Your task to perform on an android device: Go to Amazon Image 0: 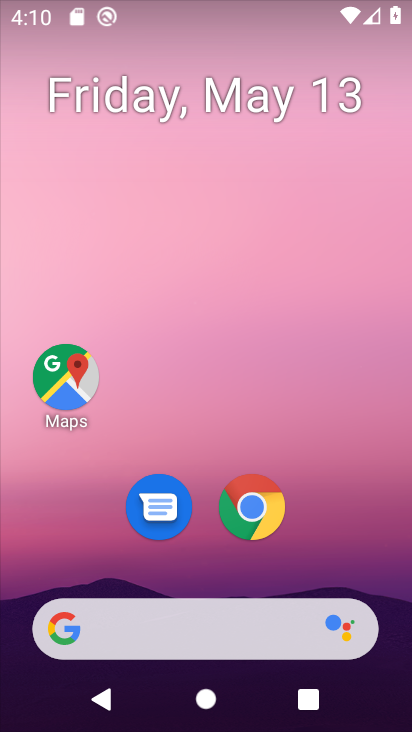
Step 0: click (258, 514)
Your task to perform on an android device: Go to Amazon Image 1: 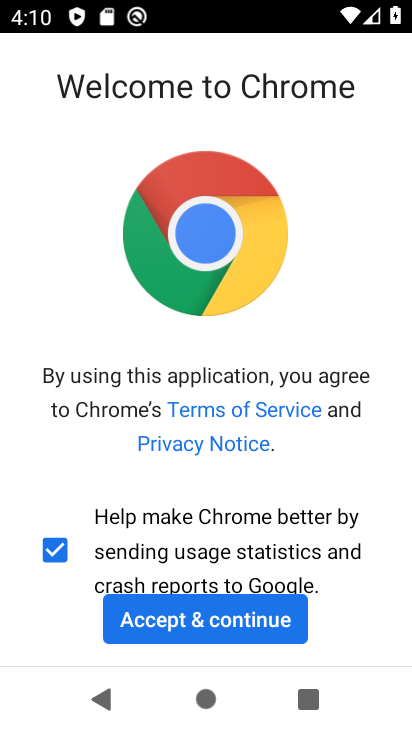
Step 1: click (257, 613)
Your task to perform on an android device: Go to Amazon Image 2: 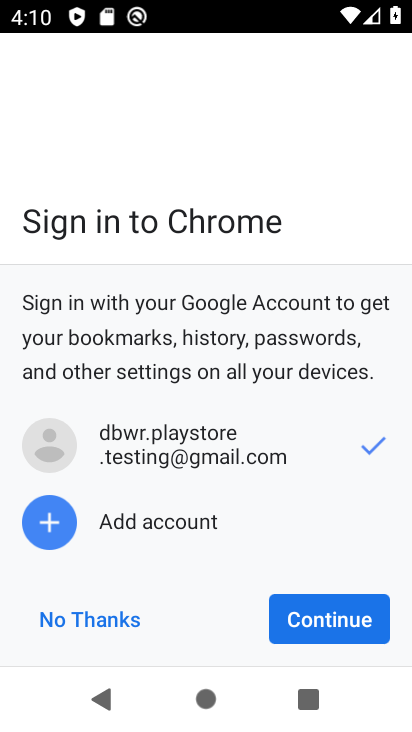
Step 2: click (348, 612)
Your task to perform on an android device: Go to Amazon Image 3: 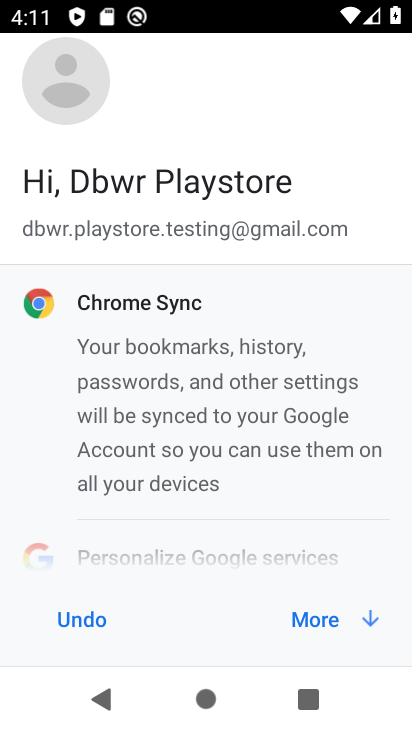
Step 3: click (311, 611)
Your task to perform on an android device: Go to Amazon Image 4: 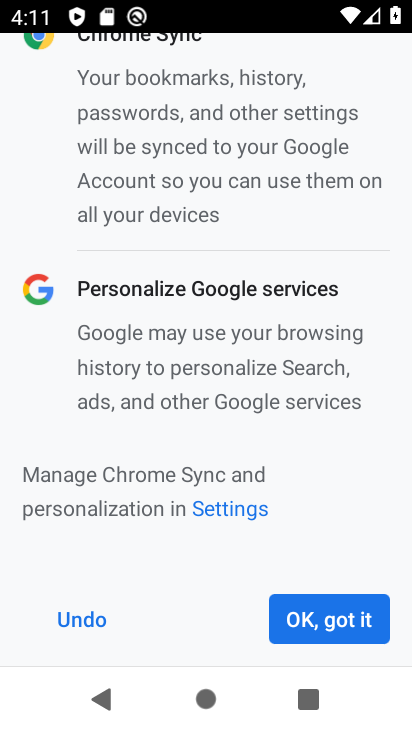
Step 4: click (333, 617)
Your task to perform on an android device: Go to Amazon Image 5: 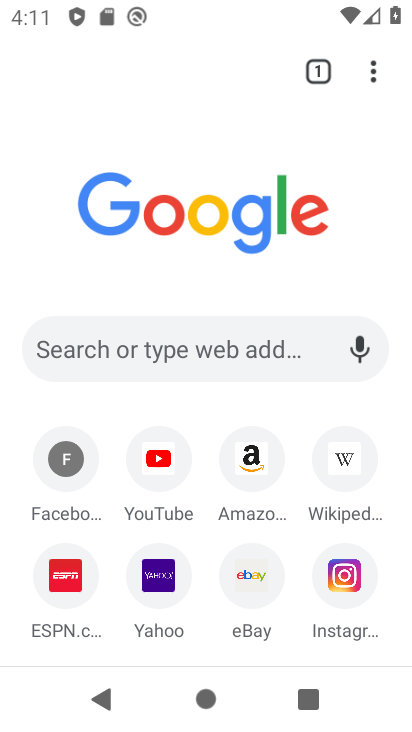
Step 5: click (254, 454)
Your task to perform on an android device: Go to Amazon Image 6: 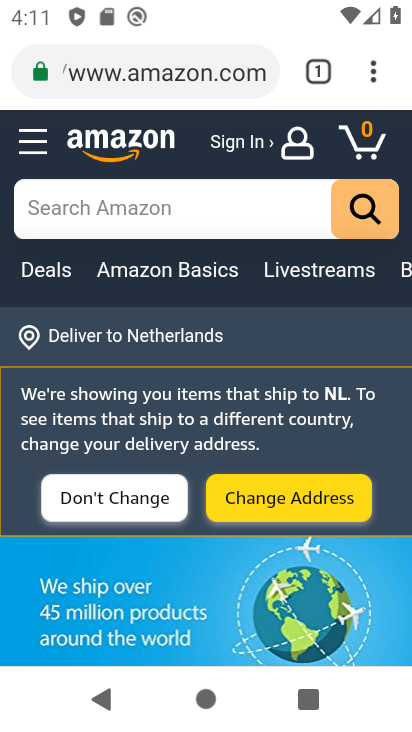
Step 6: task complete